Your task to perform on an android device: Clear all items from cart on walmart.com. Add bose soundlink to the cart on walmart.com Image 0: 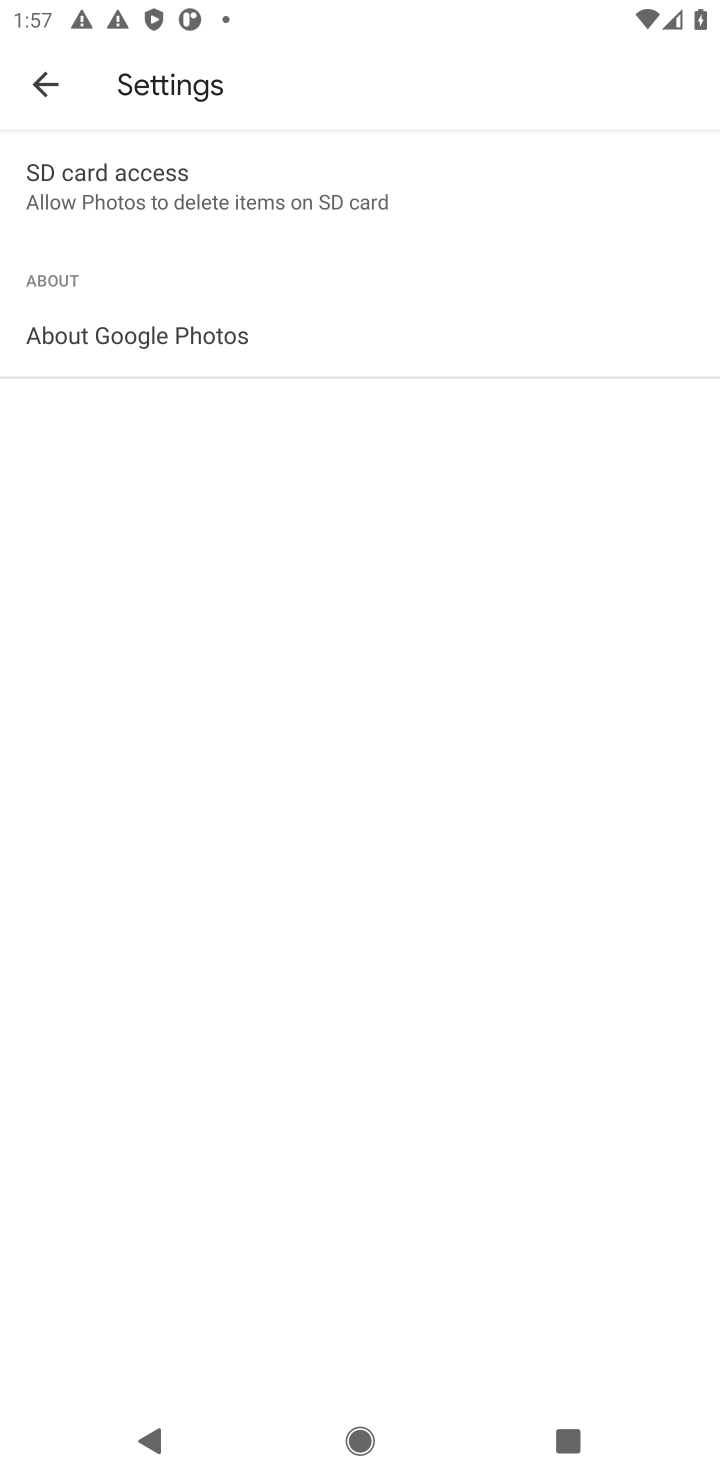
Step 0: press home button
Your task to perform on an android device: Clear all items from cart on walmart.com. Add bose soundlink to the cart on walmart.com Image 1: 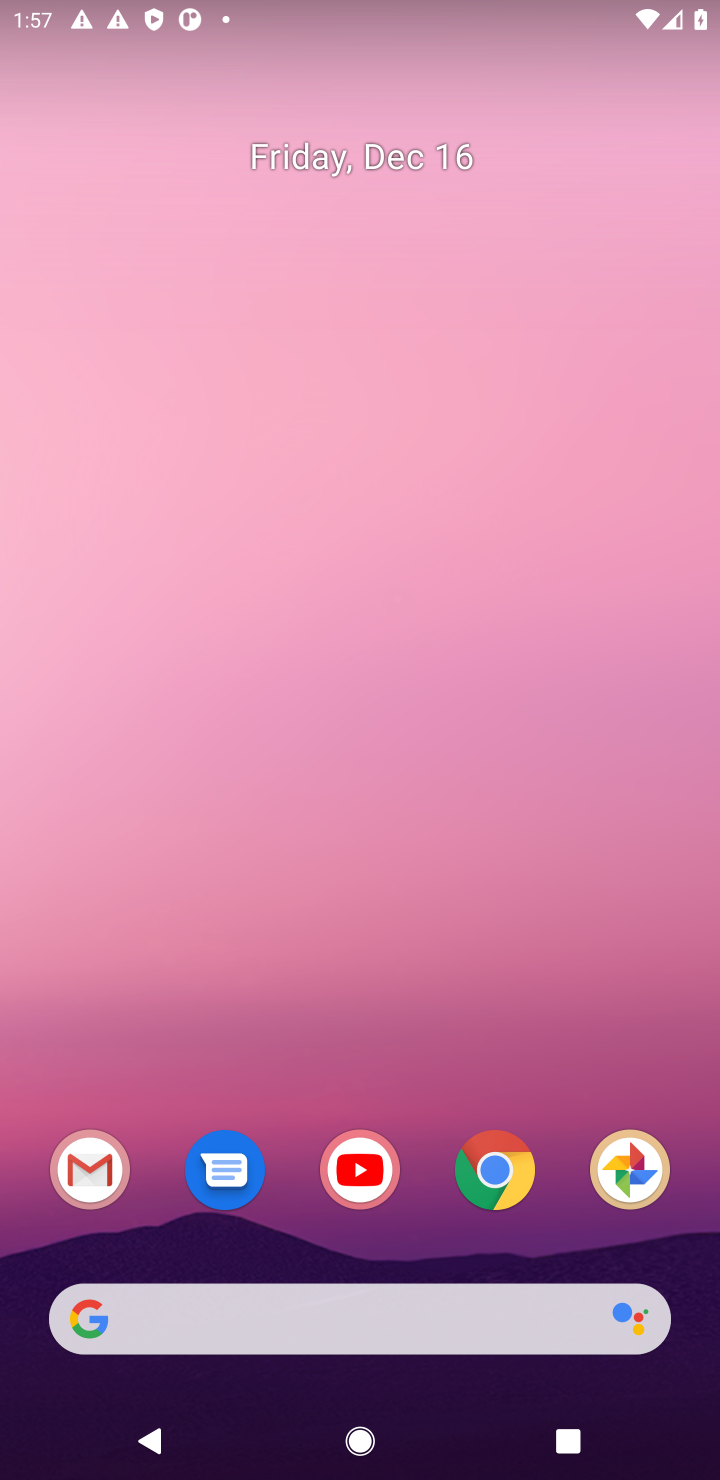
Step 1: click (495, 1175)
Your task to perform on an android device: Clear all items from cart on walmart.com. Add bose soundlink to the cart on walmart.com Image 2: 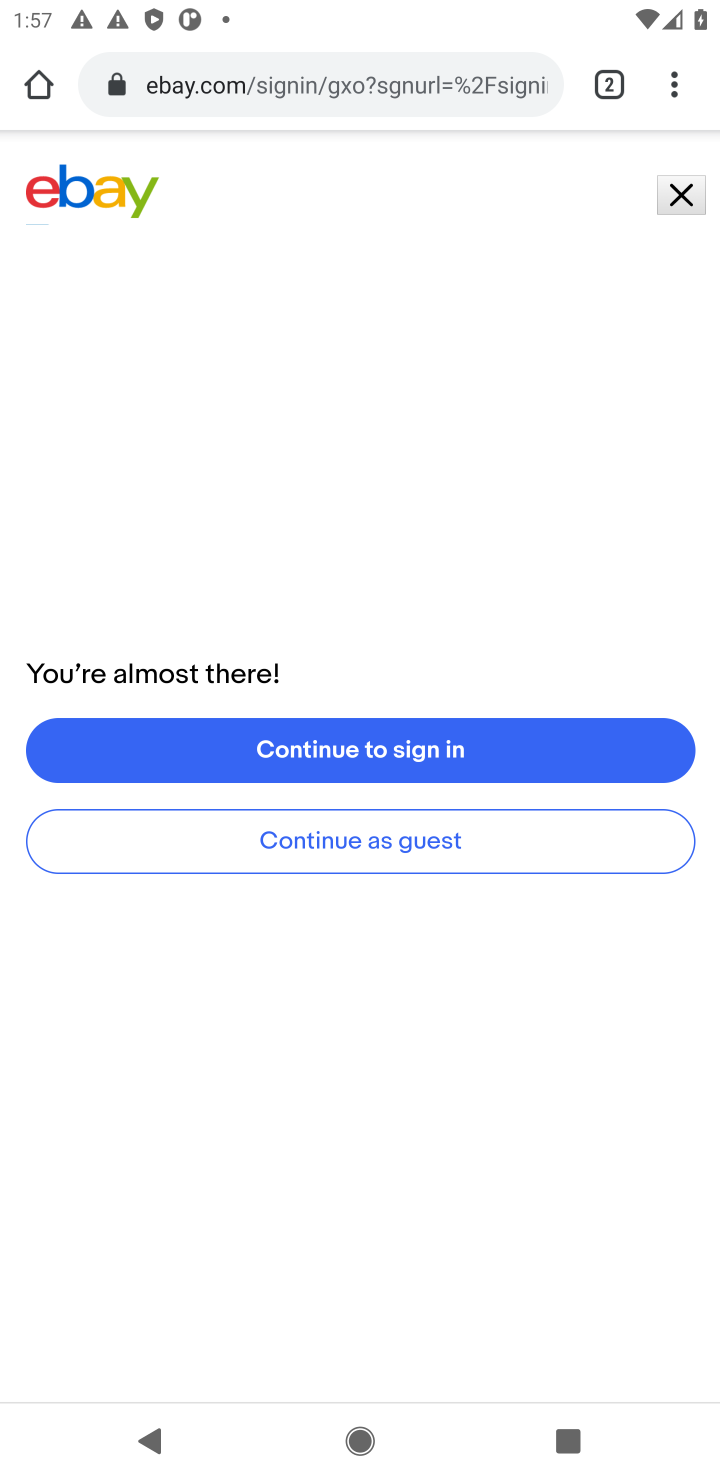
Step 2: click (265, 83)
Your task to perform on an android device: Clear all items from cart on walmart.com. Add bose soundlink to the cart on walmart.com Image 3: 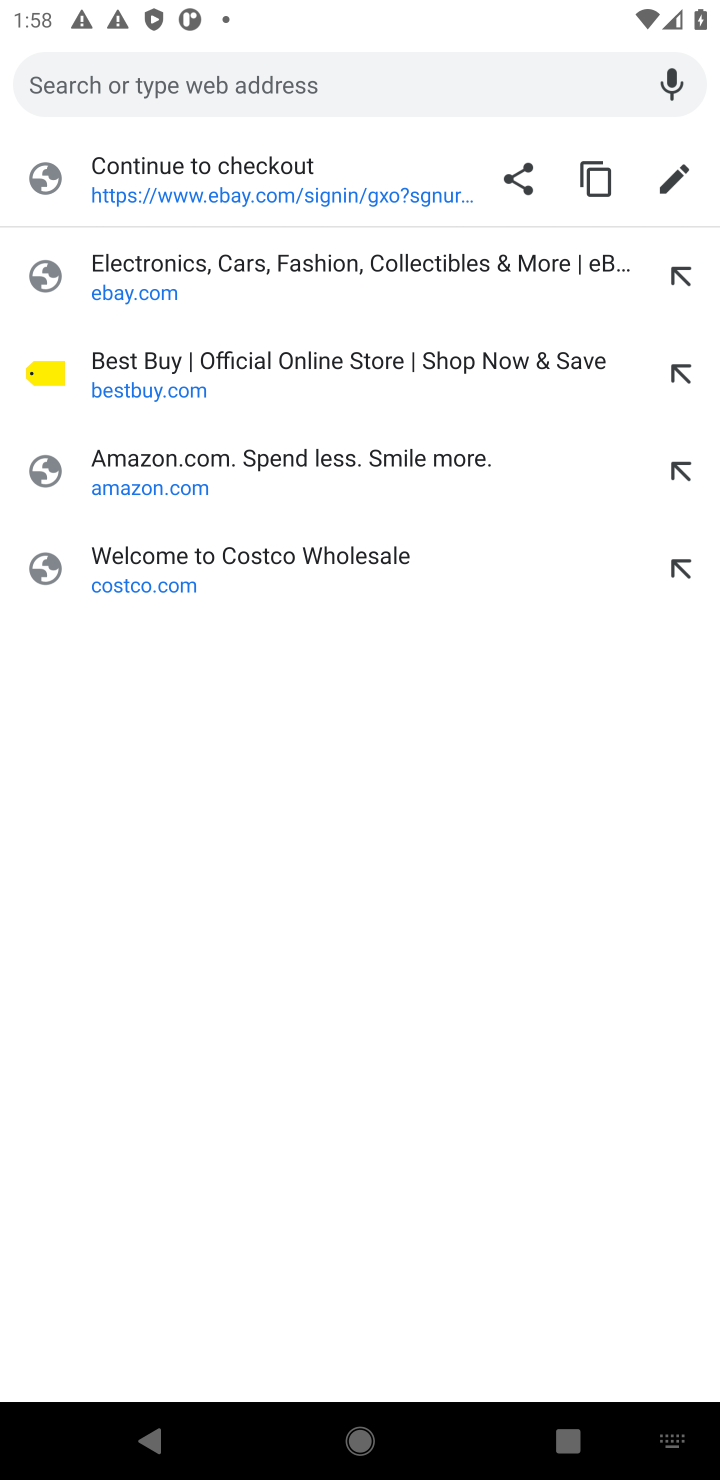
Step 3: type "walmart.com"
Your task to perform on an android device: Clear all items from cart on walmart.com. Add bose soundlink to the cart on walmart.com Image 4: 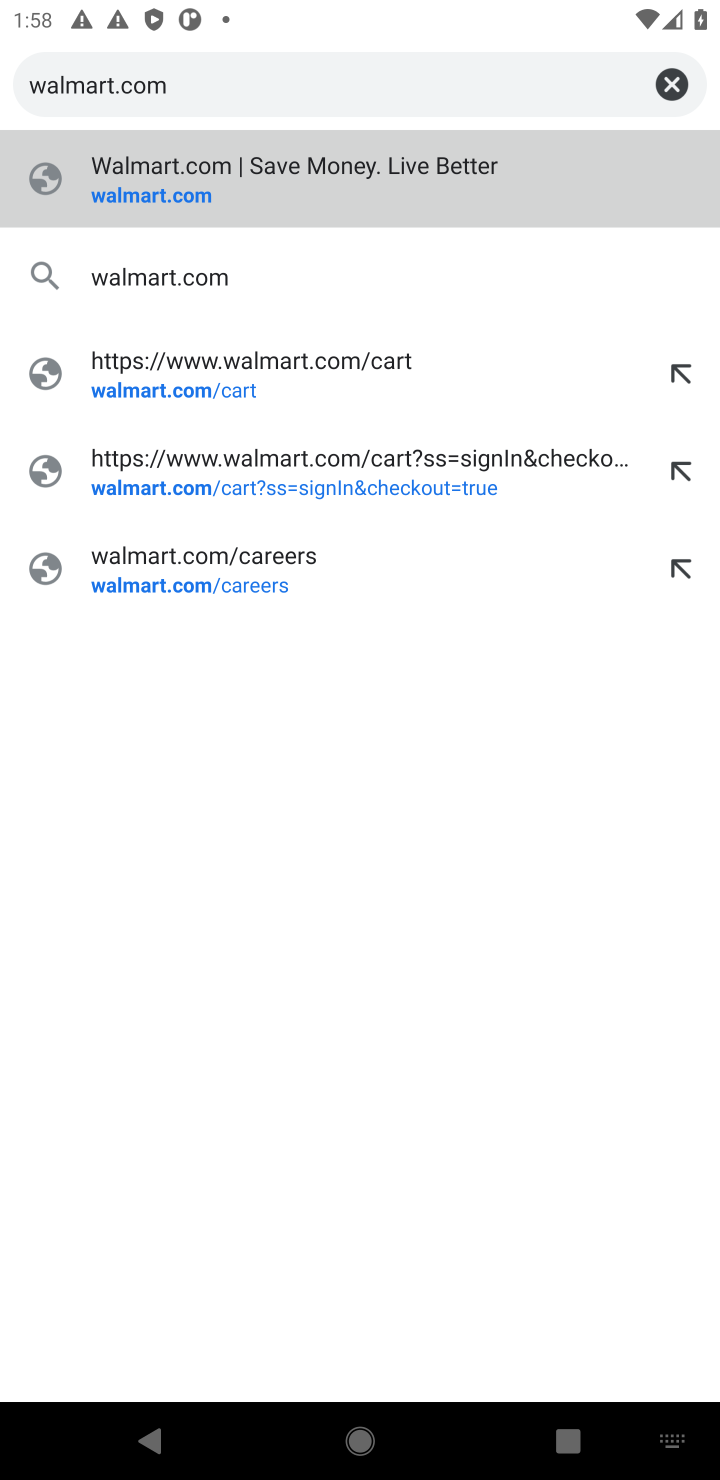
Step 4: click (154, 197)
Your task to perform on an android device: Clear all items from cart on walmart.com. Add bose soundlink to the cart on walmart.com Image 5: 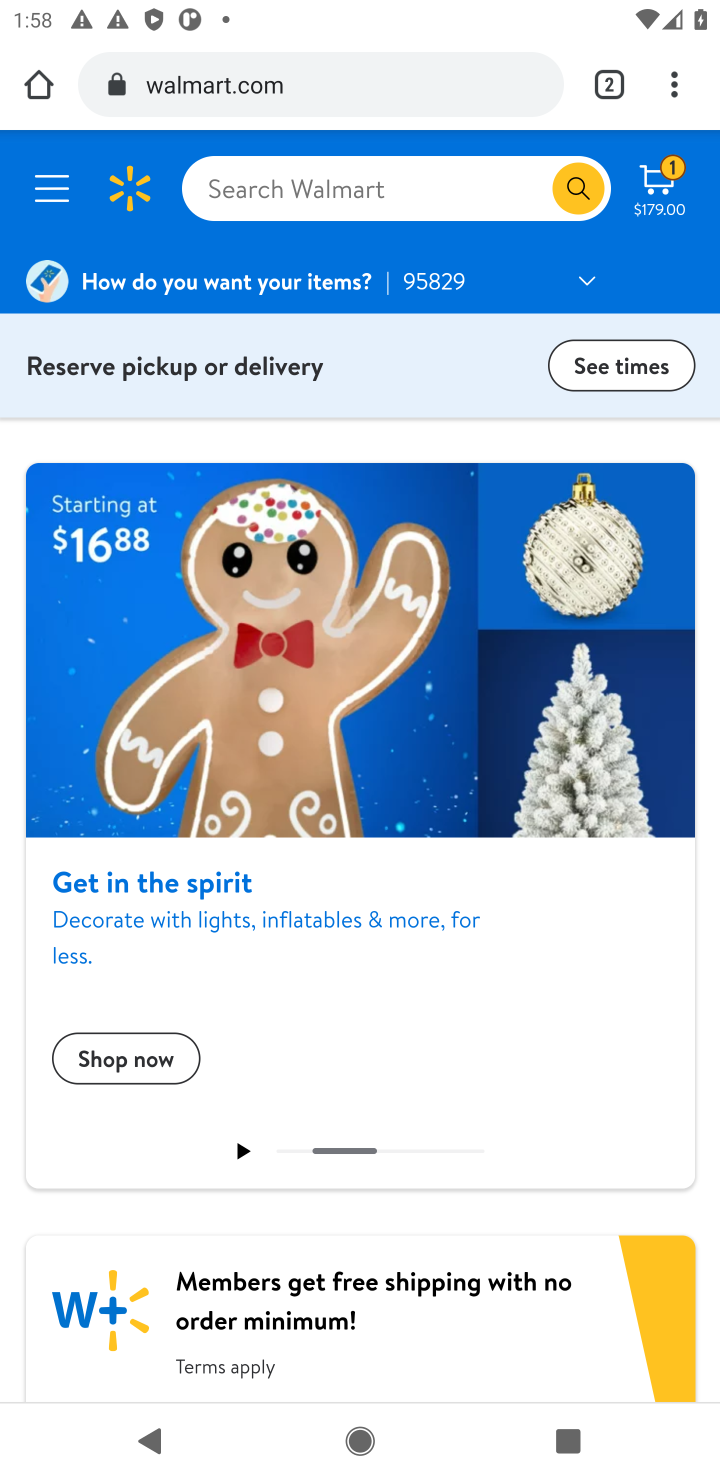
Step 5: click (655, 200)
Your task to perform on an android device: Clear all items from cart on walmart.com. Add bose soundlink to the cart on walmart.com Image 6: 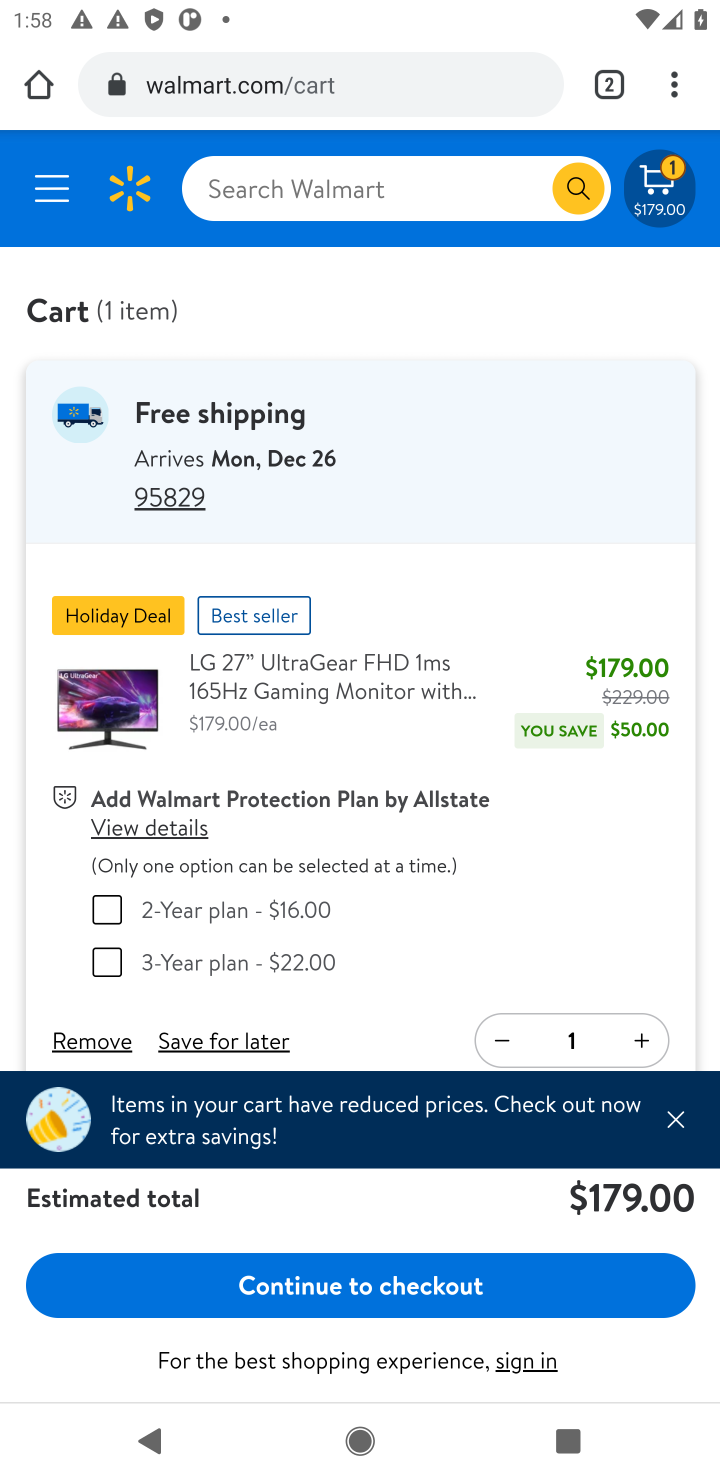
Step 6: click (79, 1046)
Your task to perform on an android device: Clear all items from cart on walmart.com. Add bose soundlink to the cart on walmart.com Image 7: 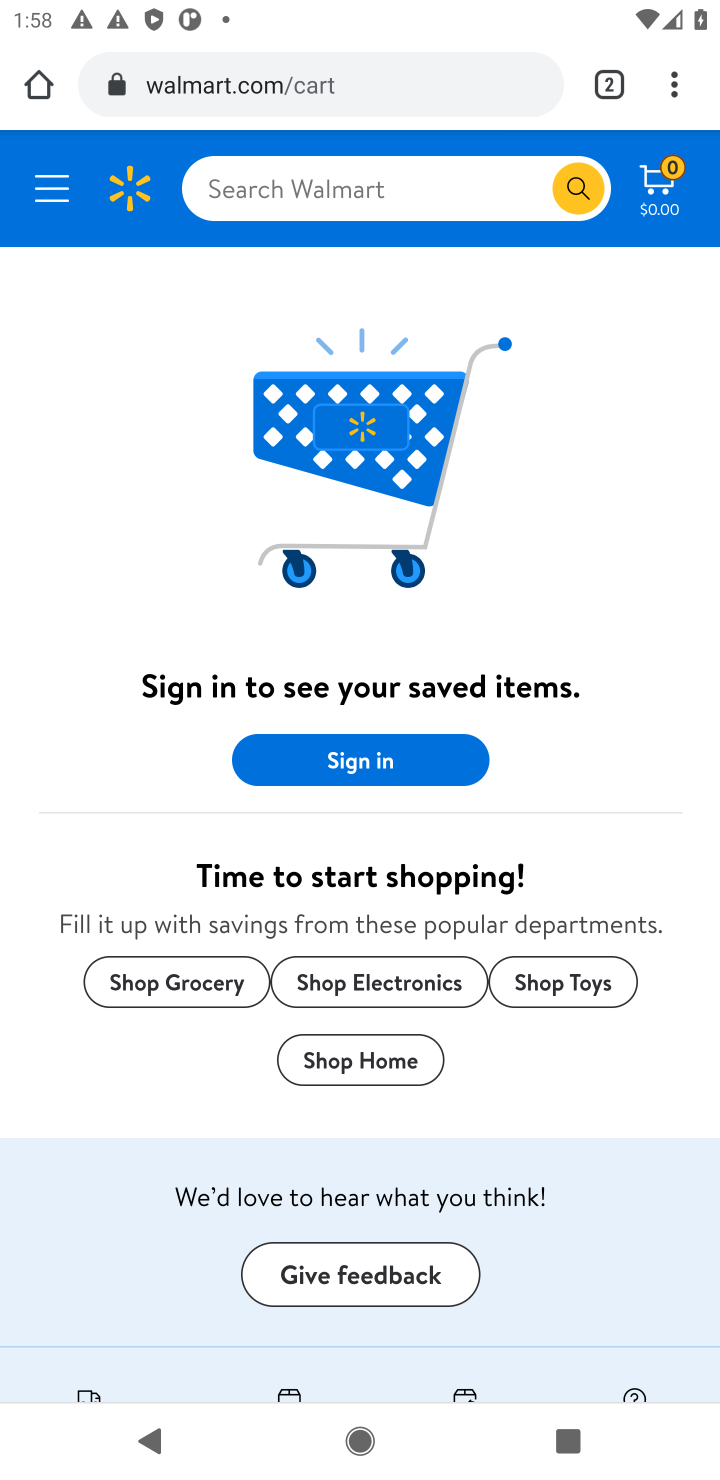
Step 7: click (272, 187)
Your task to perform on an android device: Clear all items from cart on walmart.com. Add bose soundlink to the cart on walmart.com Image 8: 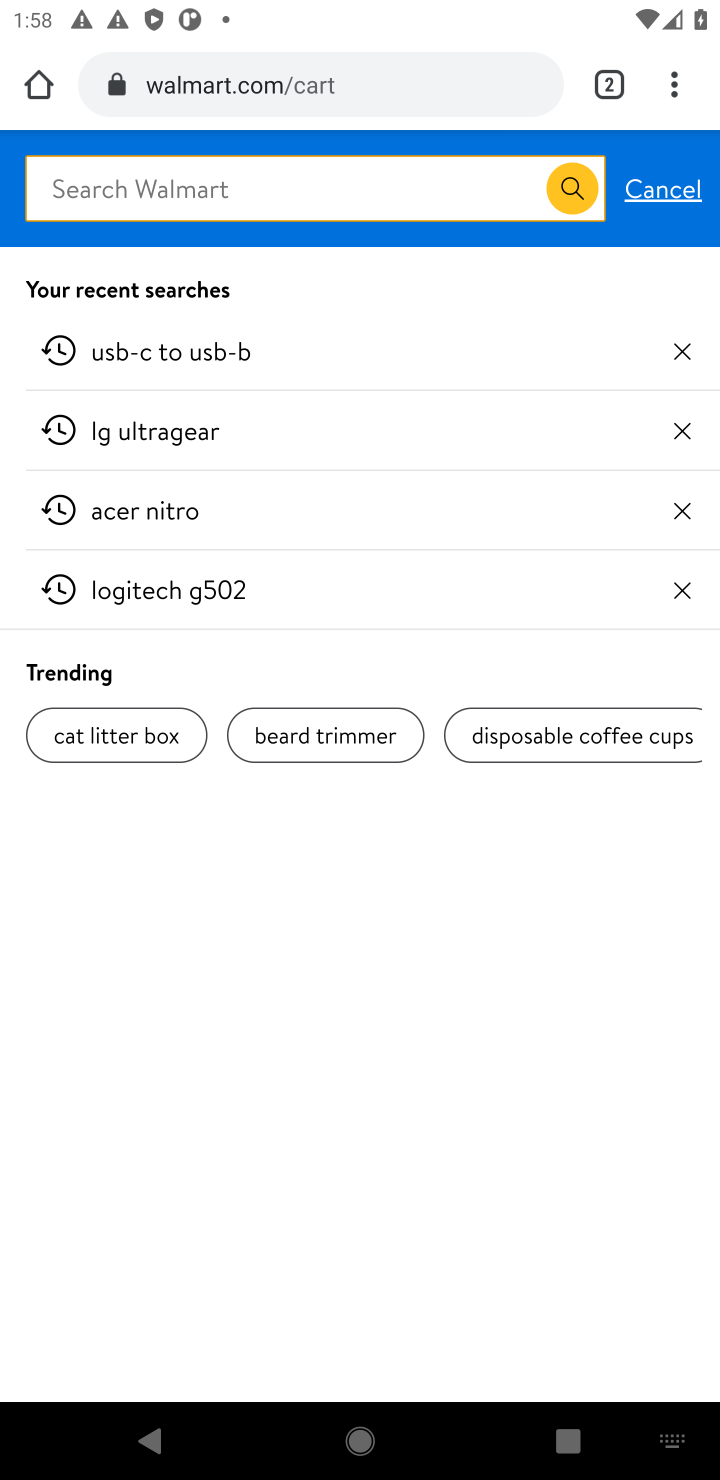
Step 8: type "bose soundlink "
Your task to perform on an android device: Clear all items from cart on walmart.com. Add bose soundlink to the cart on walmart.com Image 9: 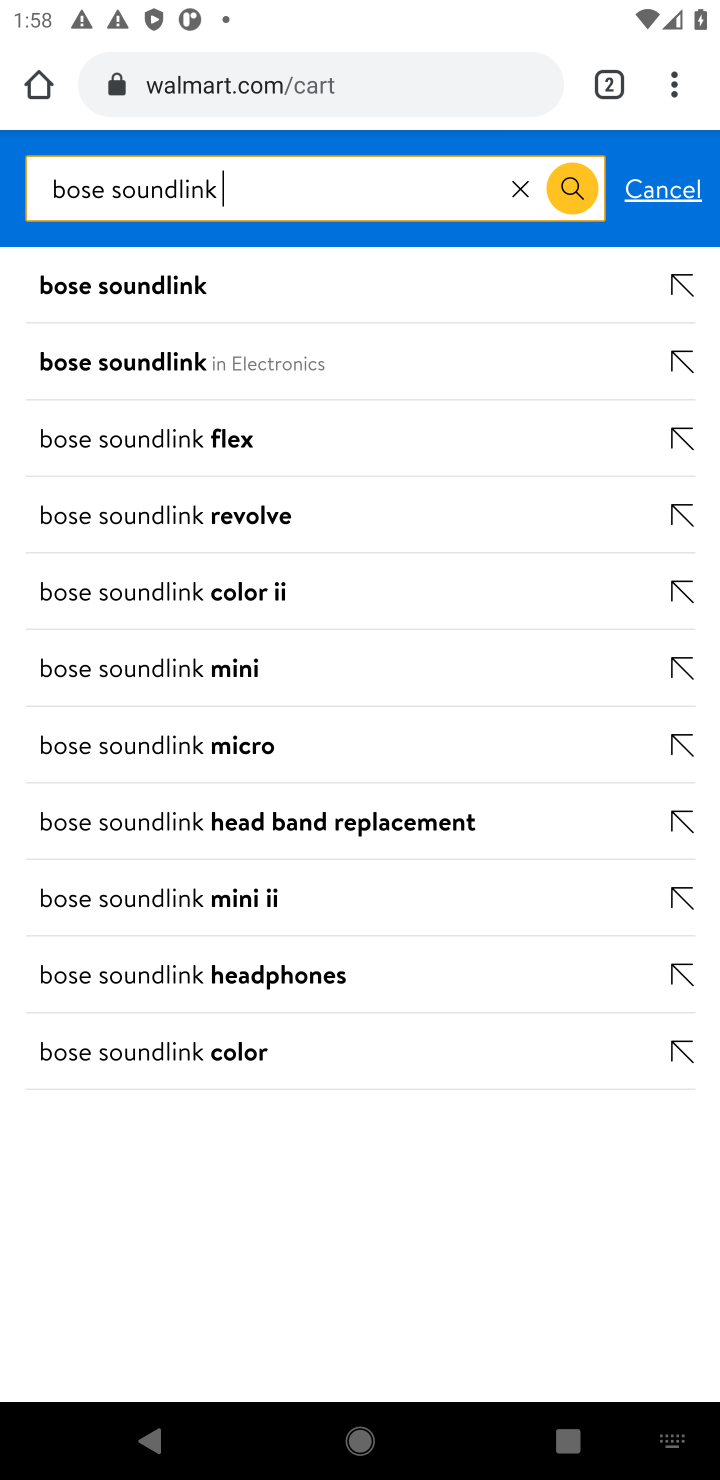
Step 9: click (120, 295)
Your task to perform on an android device: Clear all items from cart on walmart.com. Add bose soundlink to the cart on walmart.com Image 10: 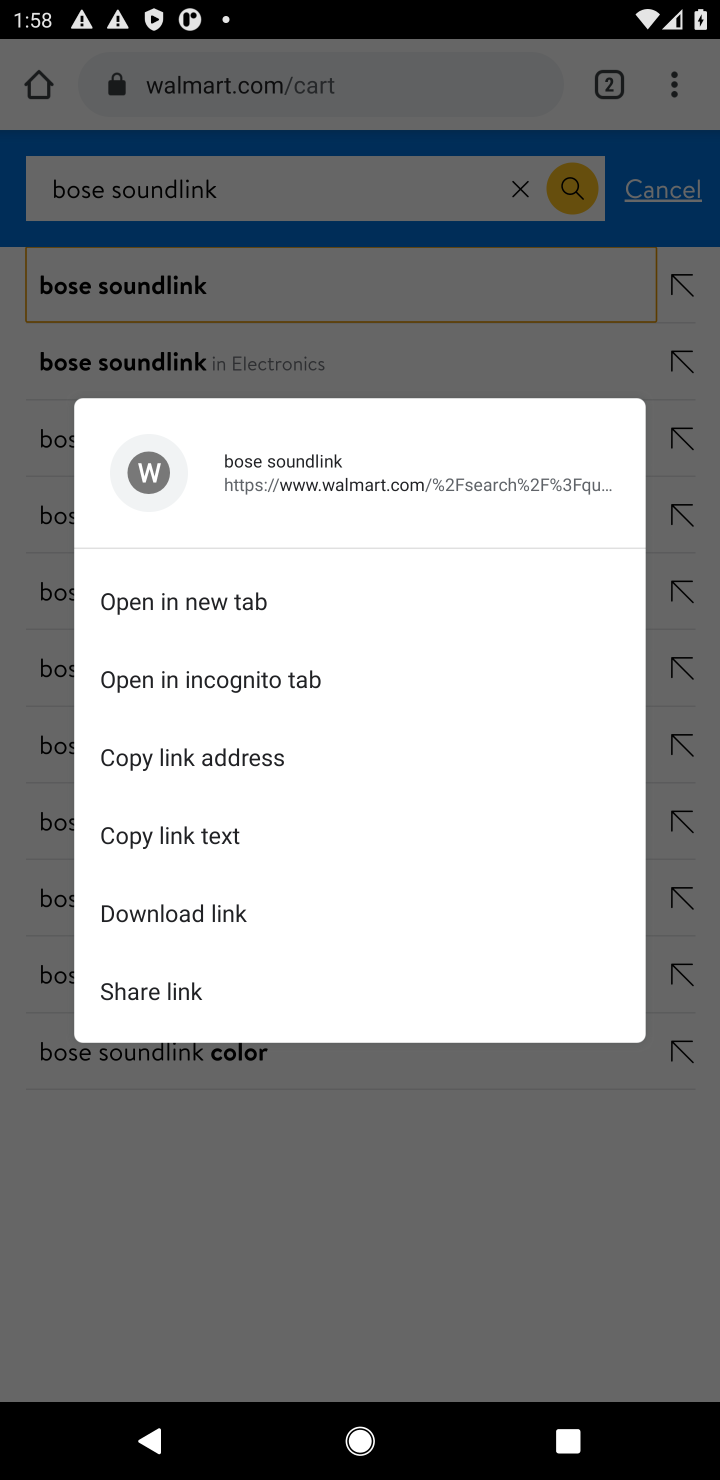
Step 10: click (120, 295)
Your task to perform on an android device: Clear all items from cart on walmart.com. Add bose soundlink to the cart on walmart.com Image 11: 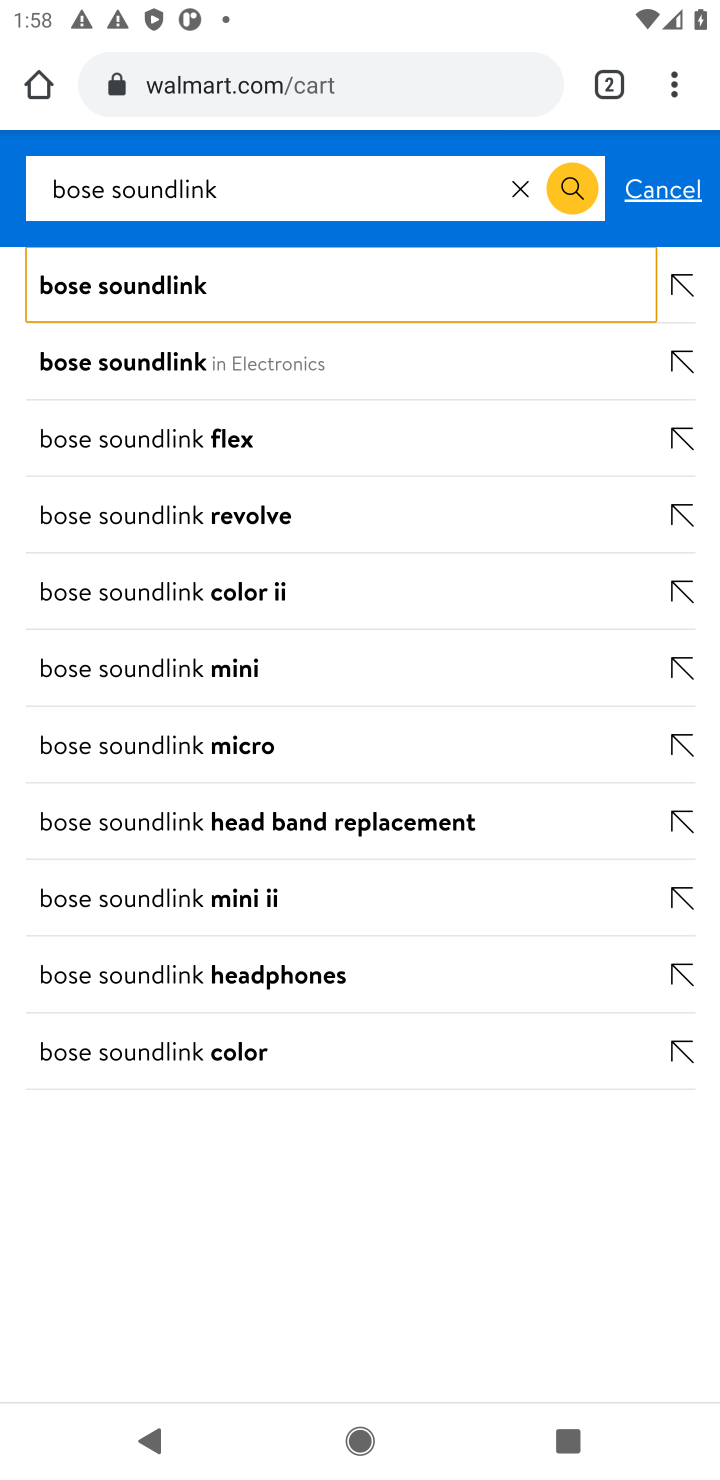
Step 11: click (54, 283)
Your task to perform on an android device: Clear all items from cart on walmart.com. Add bose soundlink to the cart on walmart.com Image 12: 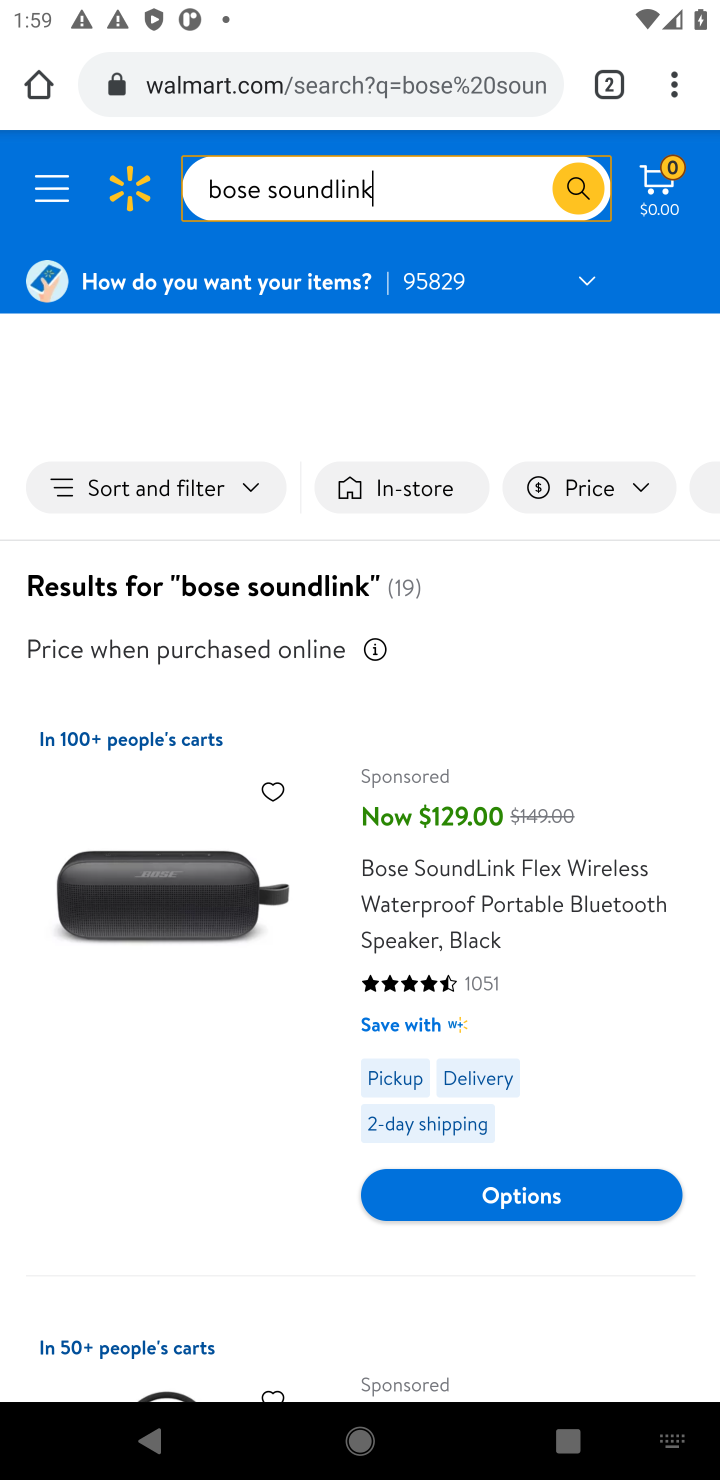
Step 12: click (530, 903)
Your task to perform on an android device: Clear all items from cart on walmart.com. Add bose soundlink to the cart on walmart.com Image 13: 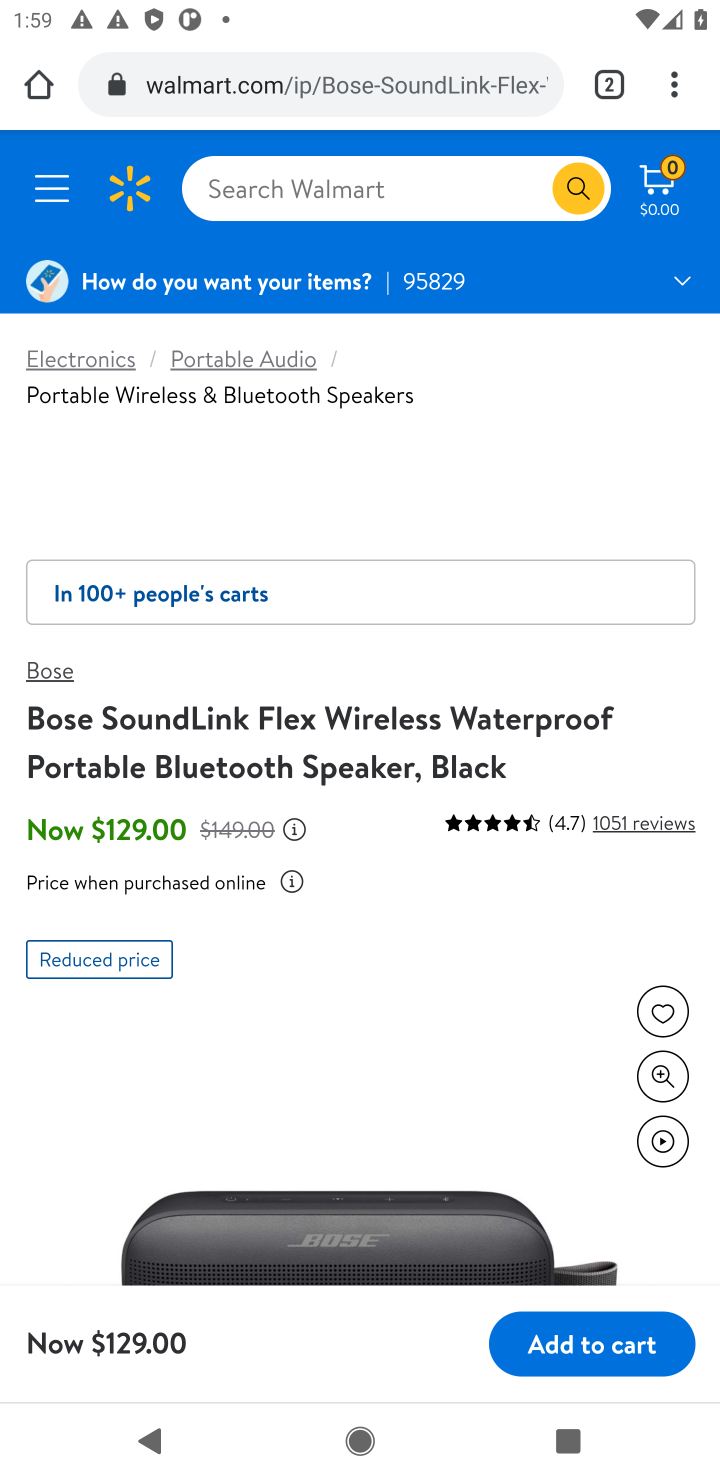
Step 13: drag from (412, 962) to (433, 716)
Your task to perform on an android device: Clear all items from cart on walmart.com. Add bose soundlink to the cart on walmart.com Image 14: 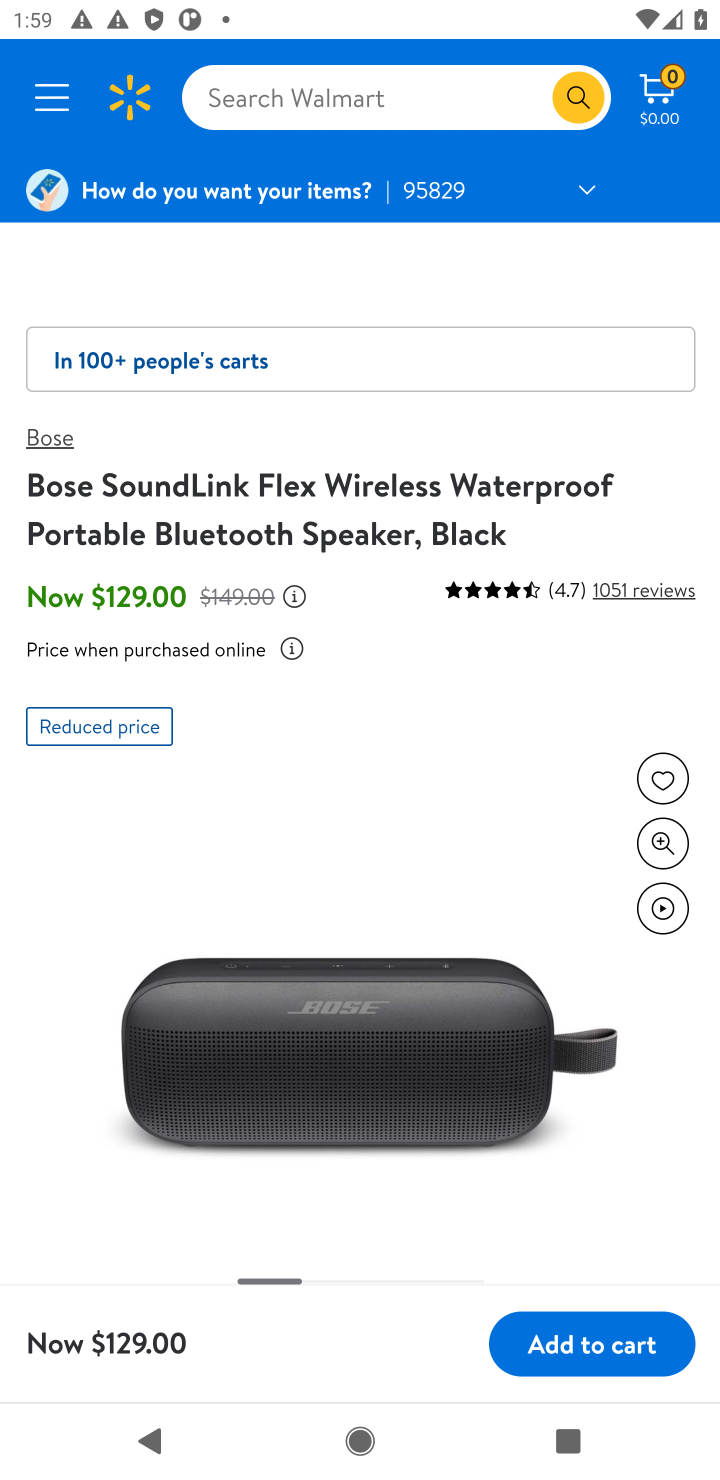
Step 14: click (613, 1346)
Your task to perform on an android device: Clear all items from cart on walmart.com. Add bose soundlink to the cart on walmart.com Image 15: 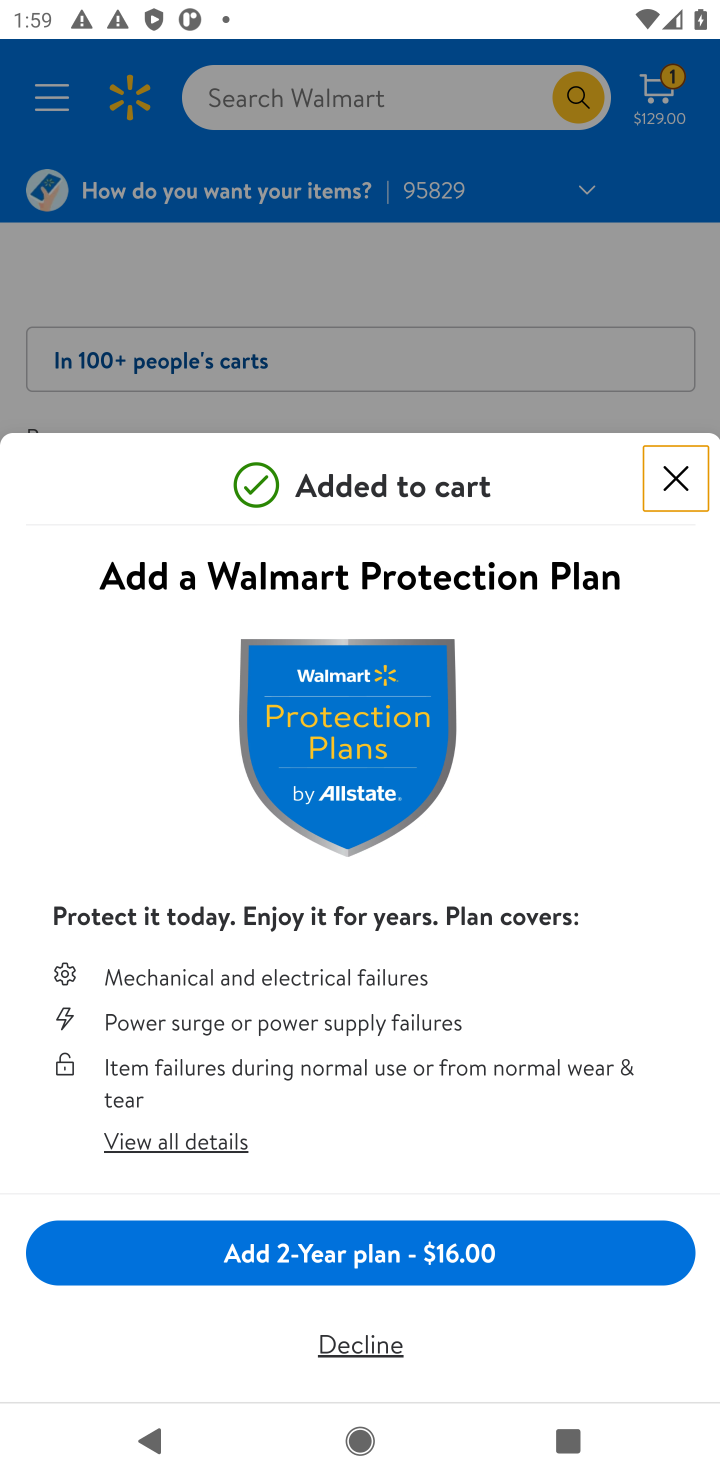
Step 15: task complete